Your task to perform on an android device: see creations saved in the google photos Image 0: 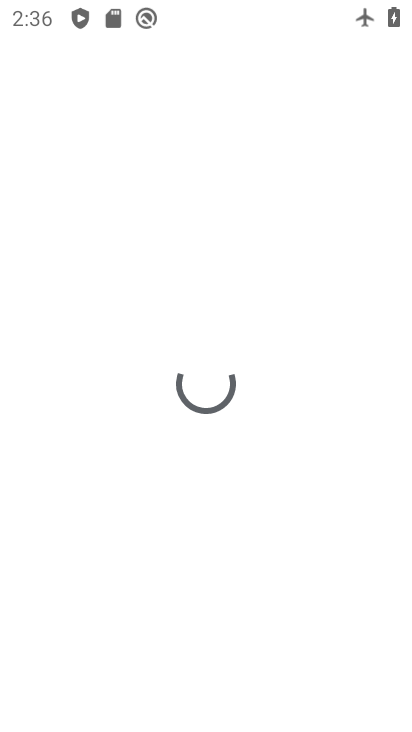
Step 0: drag from (173, 667) to (218, 380)
Your task to perform on an android device: see creations saved in the google photos Image 1: 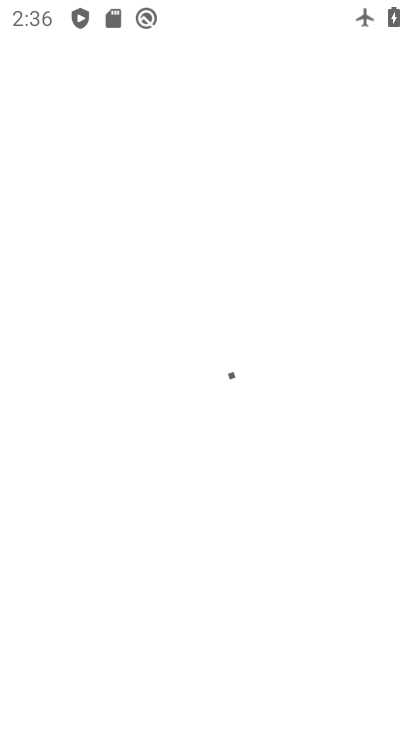
Step 1: press home button
Your task to perform on an android device: see creations saved in the google photos Image 2: 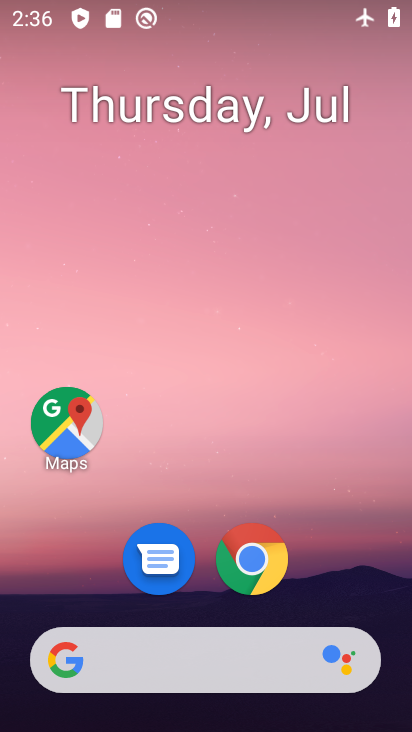
Step 2: drag from (230, 625) to (266, 388)
Your task to perform on an android device: see creations saved in the google photos Image 3: 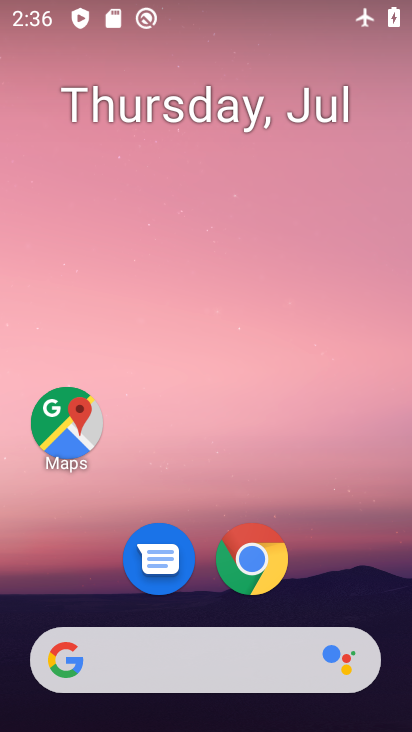
Step 3: drag from (284, 608) to (270, 233)
Your task to perform on an android device: see creations saved in the google photos Image 4: 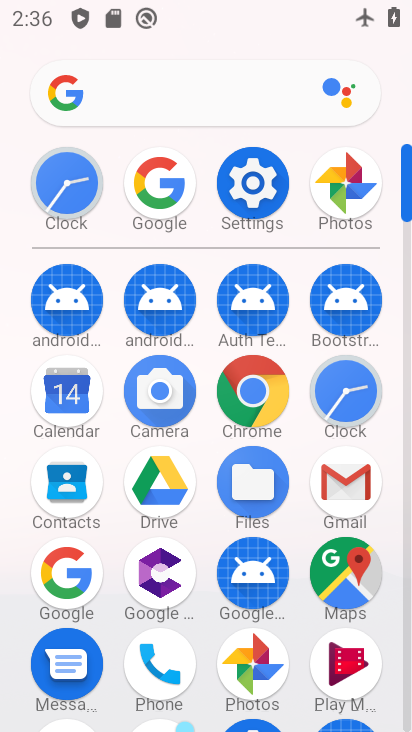
Step 4: click (247, 684)
Your task to perform on an android device: see creations saved in the google photos Image 5: 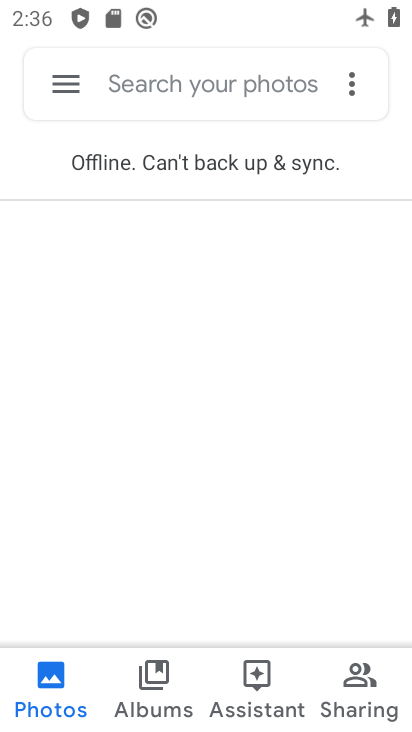
Step 5: click (250, 702)
Your task to perform on an android device: see creations saved in the google photos Image 6: 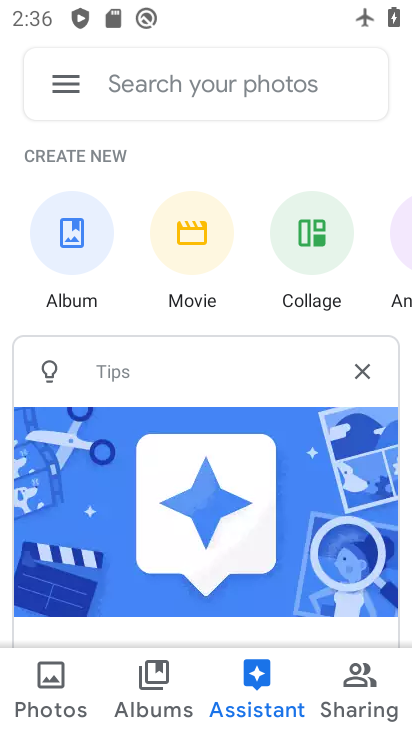
Step 6: task complete